Your task to perform on an android device: Open Amazon Image 0: 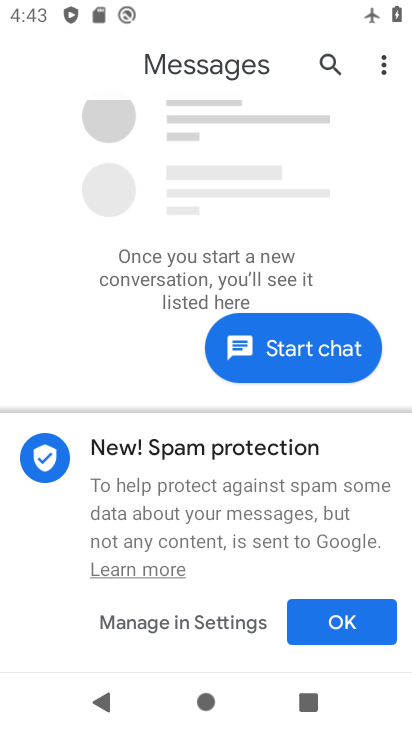
Step 0: press back button
Your task to perform on an android device: Open Amazon Image 1: 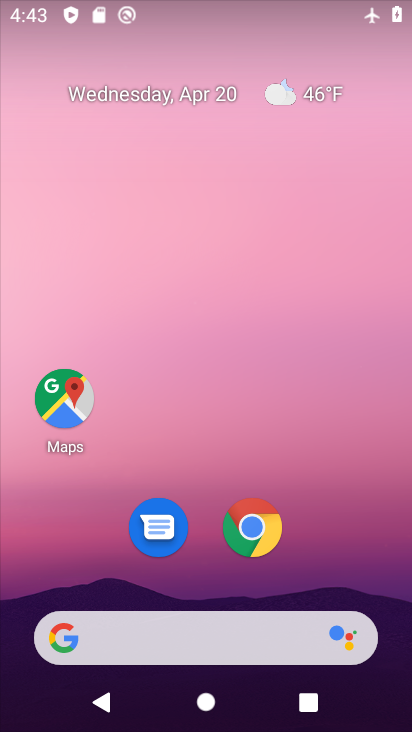
Step 1: click (256, 527)
Your task to perform on an android device: Open Amazon Image 2: 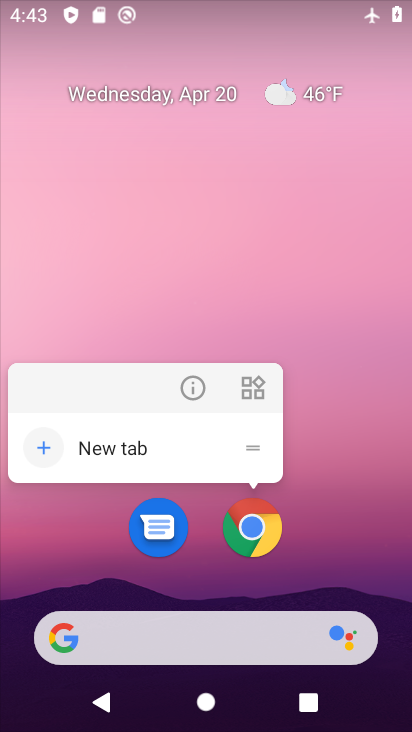
Step 2: click (197, 393)
Your task to perform on an android device: Open Amazon Image 3: 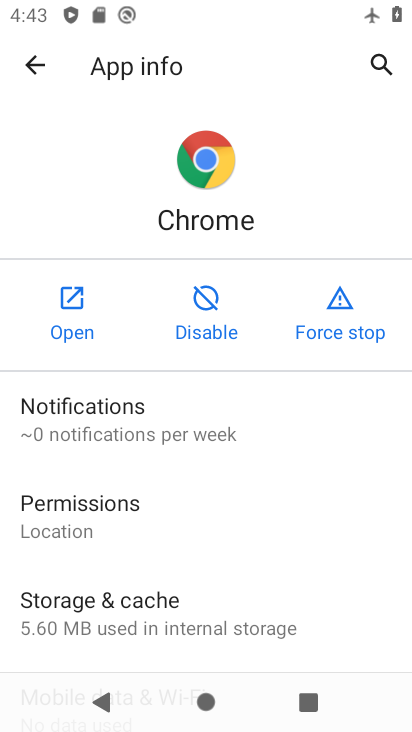
Step 3: click (84, 294)
Your task to perform on an android device: Open Amazon Image 4: 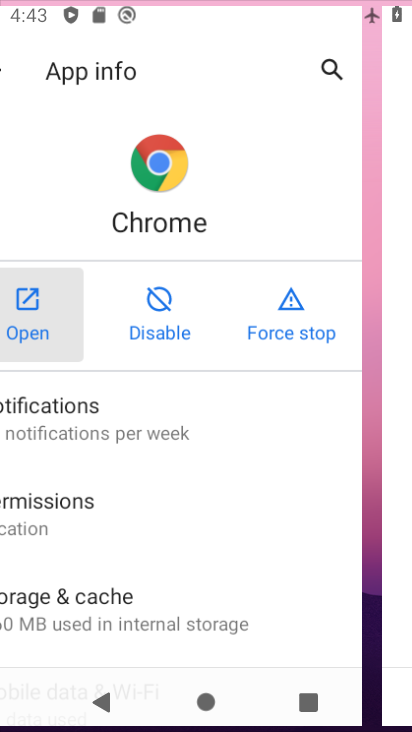
Step 4: click (78, 299)
Your task to perform on an android device: Open Amazon Image 5: 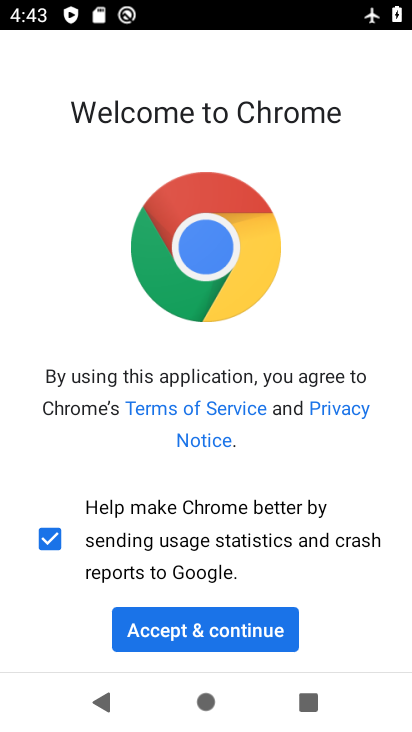
Step 5: click (269, 629)
Your task to perform on an android device: Open Amazon Image 6: 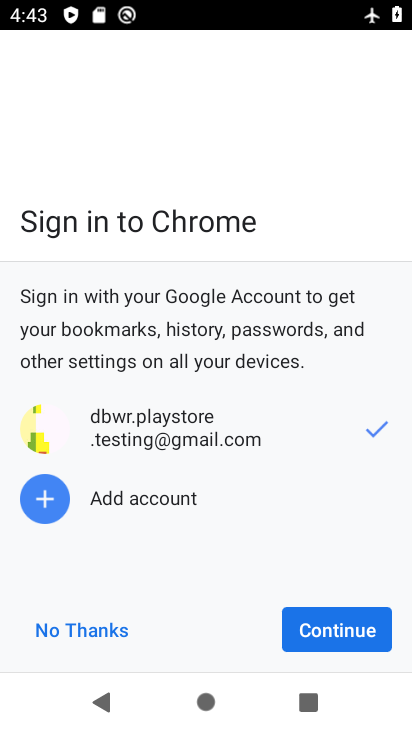
Step 6: click (337, 634)
Your task to perform on an android device: Open Amazon Image 7: 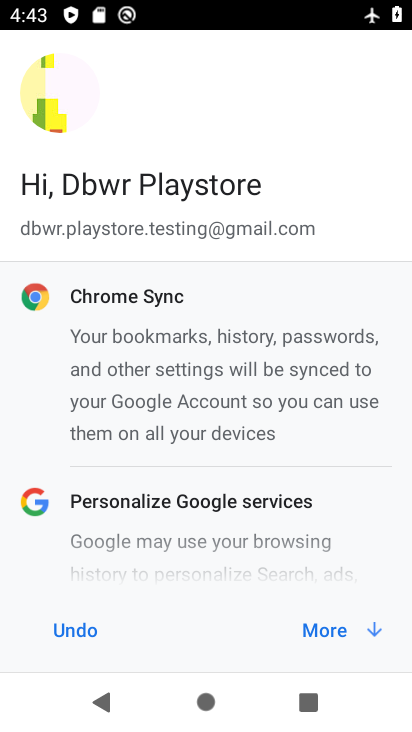
Step 7: click (347, 630)
Your task to perform on an android device: Open Amazon Image 8: 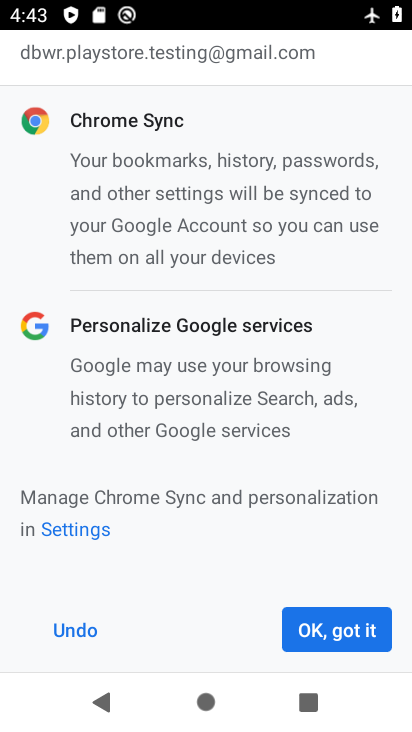
Step 8: click (358, 625)
Your task to perform on an android device: Open Amazon Image 9: 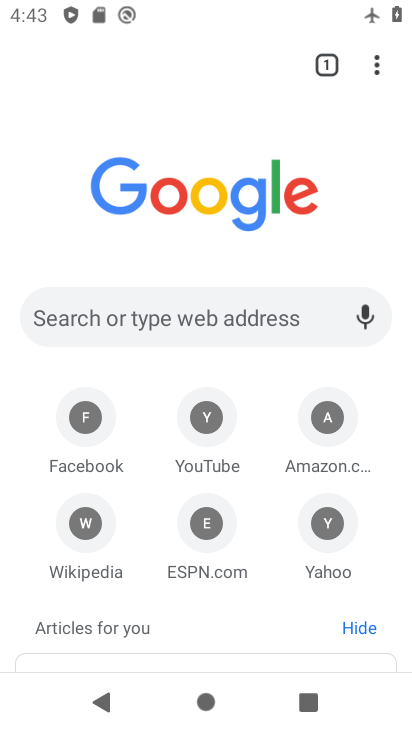
Step 9: click (130, 308)
Your task to perform on an android device: Open Amazon Image 10: 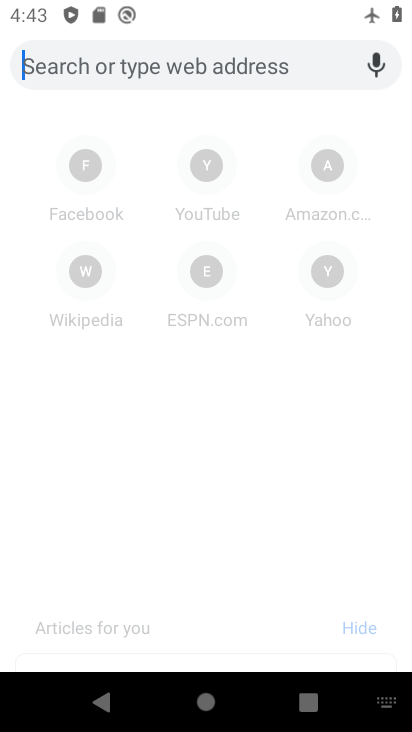
Step 10: type "amazon"
Your task to perform on an android device: Open Amazon Image 11: 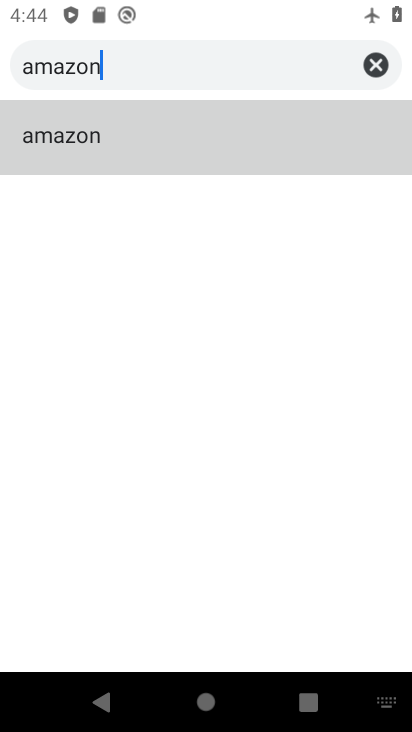
Step 11: click (115, 141)
Your task to perform on an android device: Open Amazon Image 12: 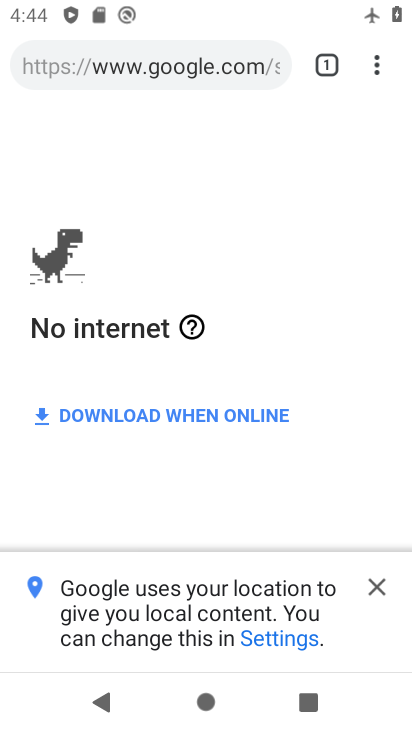
Step 12: task complete